Your task to perform on an android device: Open Google Maps Image 0: 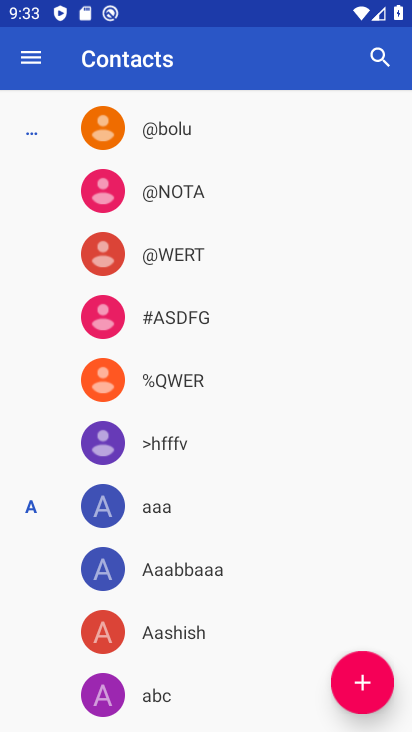
Step 0: press home button
Your task to perform on an android device: Open Google Maps Image 1: 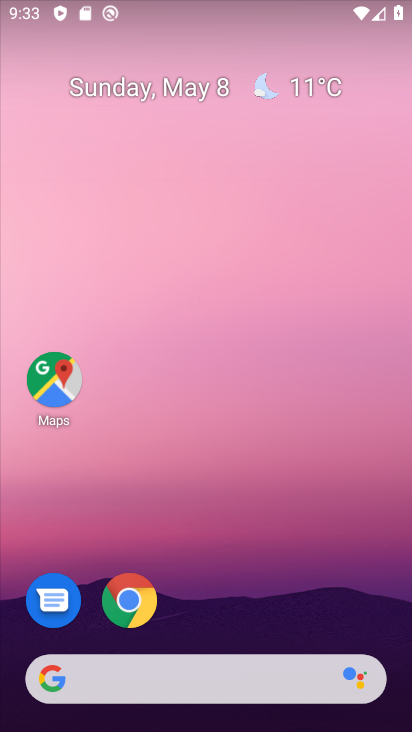
Step 1: click (77, 386)
Your task to perform on an android device: Open Google Maps Image 2: 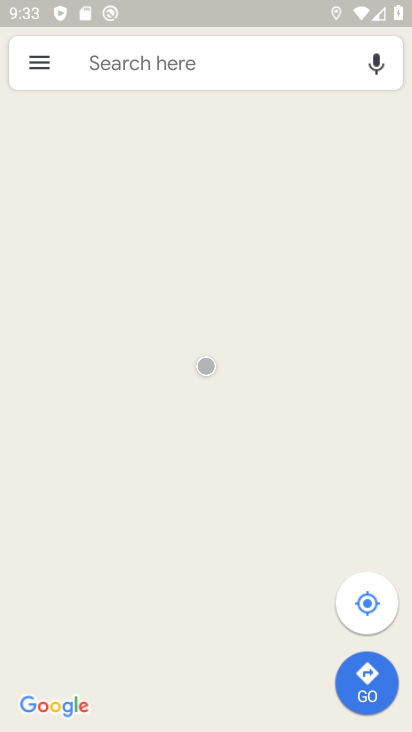
Step 2: task complete